Your task to perform on an android device: Open CNN.com Image 0: 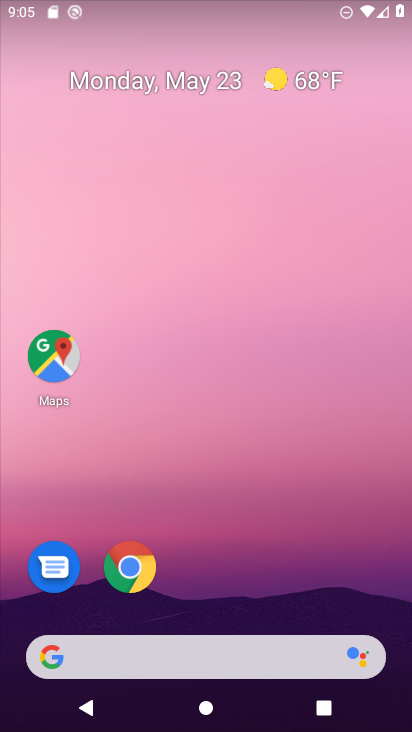
Step 0: click (343, 100)
Your task to perform on an android device: Open CNN.com Image 1: 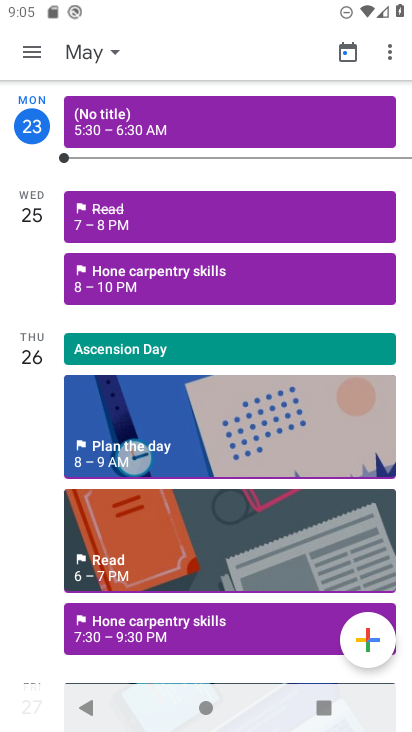
Step 1: press home button
Your task to perform on an android device: Open CNN.com Image 2: 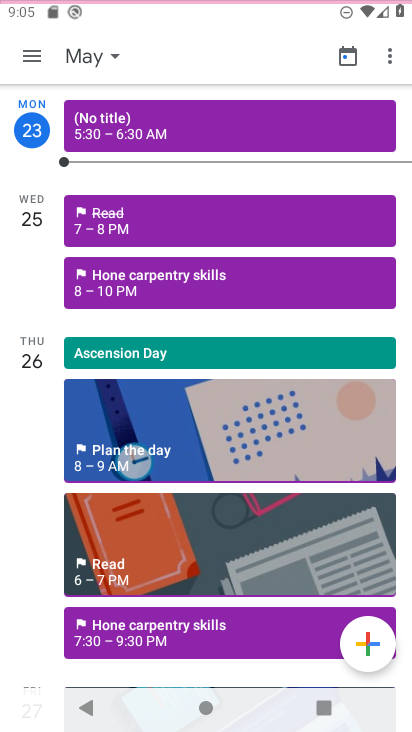
Step 2: drag from (220, 546) to (288, 27)
Your task to perform on an android device: Open CNN.com Image 3: 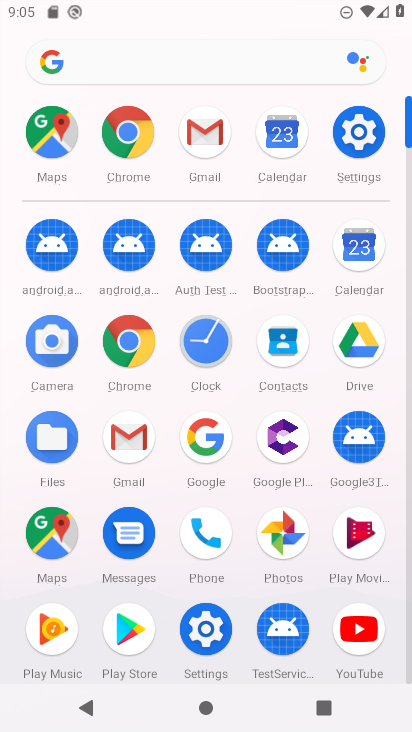
Step 3: click (181, 62)
Your task to perform on an android device: Open CNN.com Image 4: 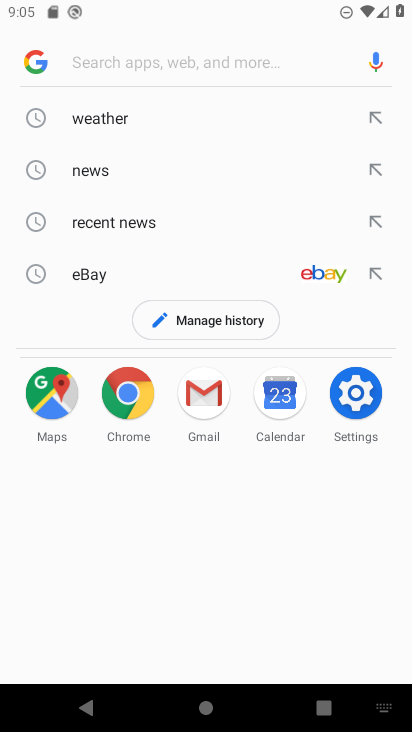
Step 4: type "cnn"
Your task to perform on an android device: Open CNN.com Image 5: 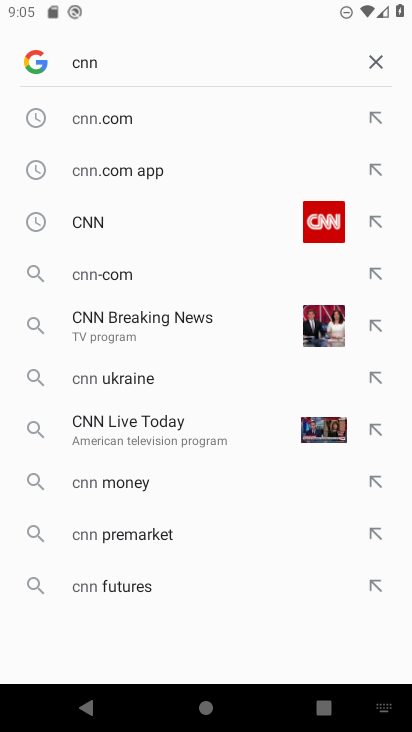
Step 5: click (151, 120)
Your task to perform on an android device: Open CNN.com Image 6: 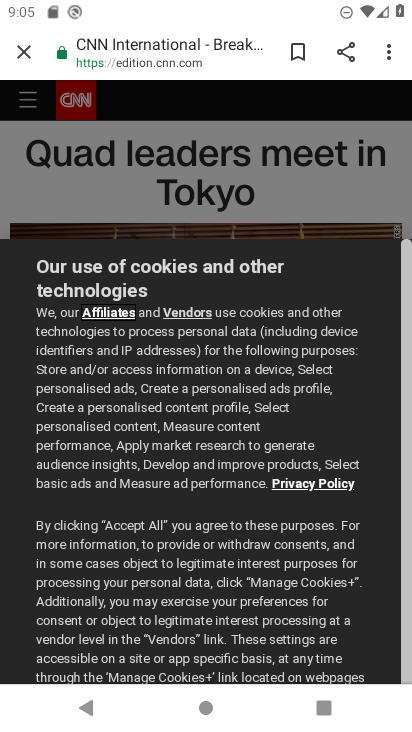
Step 6: task complete